Your task to perform on an android device: read, delete, or share a saved page in the chrome app Image 0: 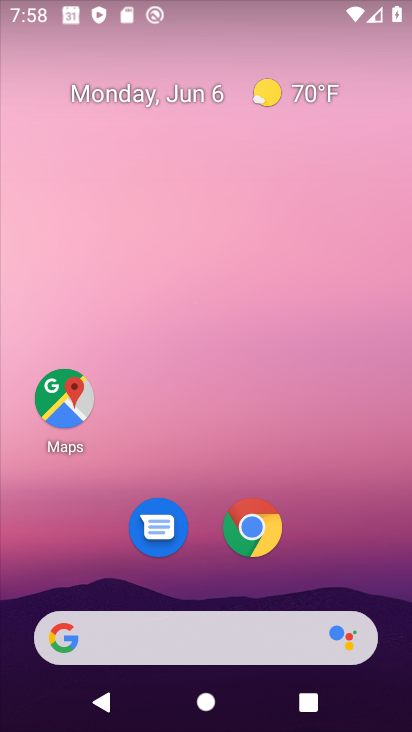
Step 0: drag from (250, 659) to (242, 284)
Your task to perform on an android device: read, delete, or share a saved page in the chrome app Image 1: 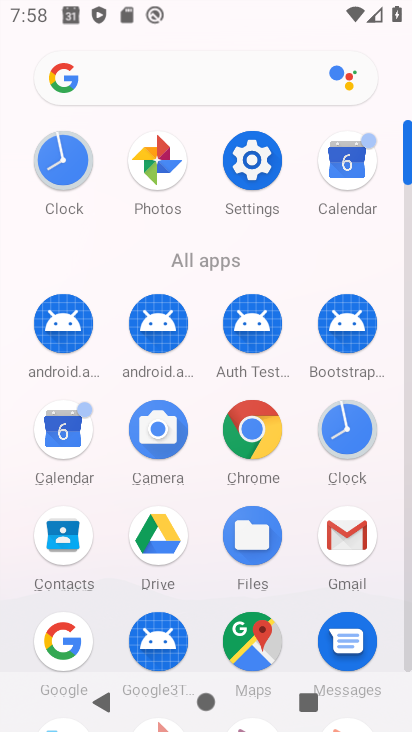
Step 1: click (270, 434)
Your task to perform on an android device: read, delete, or share a saved page in the chrome app Image 2: 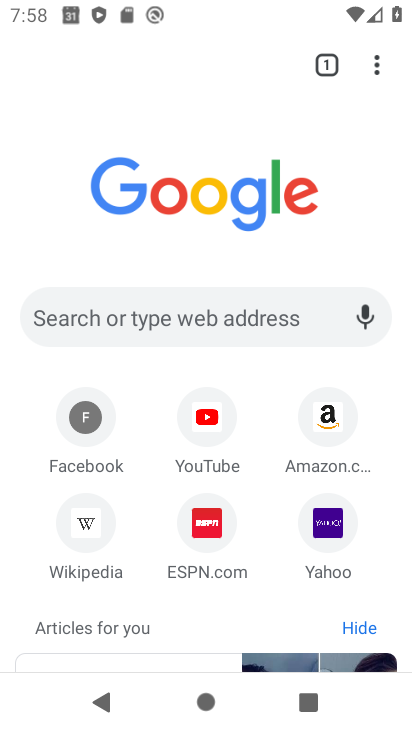
Step 2: click (378, 47)
Your task to perform on an android device: read, delete, or share a saved page in the chrome app Image 3: 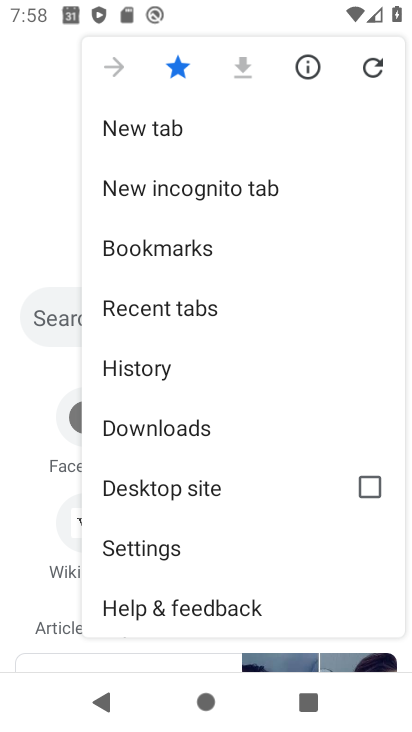
Step 3: click (192, 424)
Your task to perform on an android device: read, delete, or share a saved page in the chrome app Image 4: 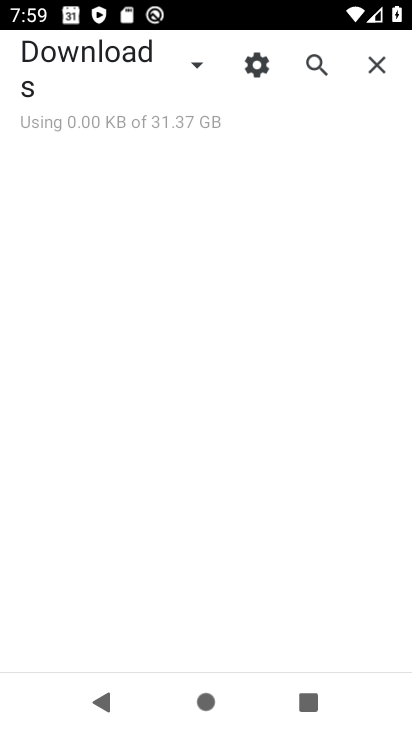
Step 4: click (190, 62)
Your task to perform on an android device: read, delete, or share a saved page in the chrome app Image 5: 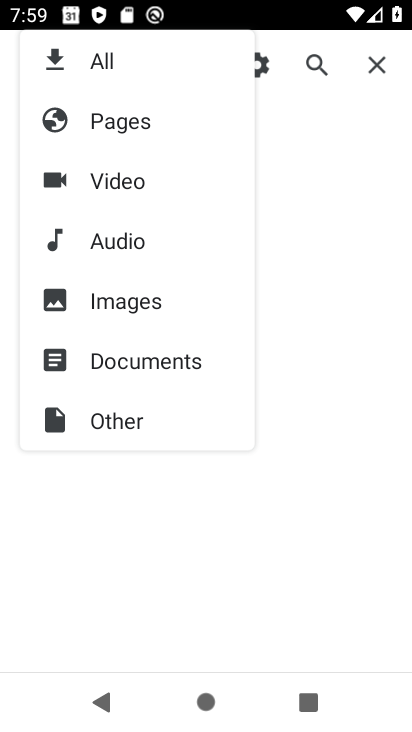
Step 5: click (131, 131)
Your task to perform on an android device: read, delete, or share a saved page in the chrome app Image 6: 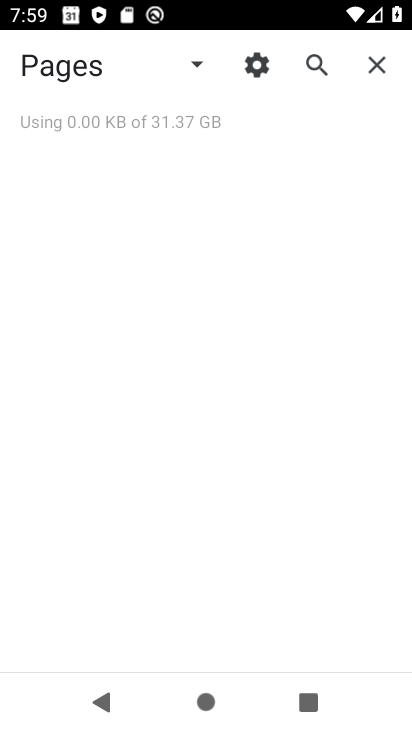
Step 6: task complete